Your task to perform on an android device: find photos in the google photos app Image 0: 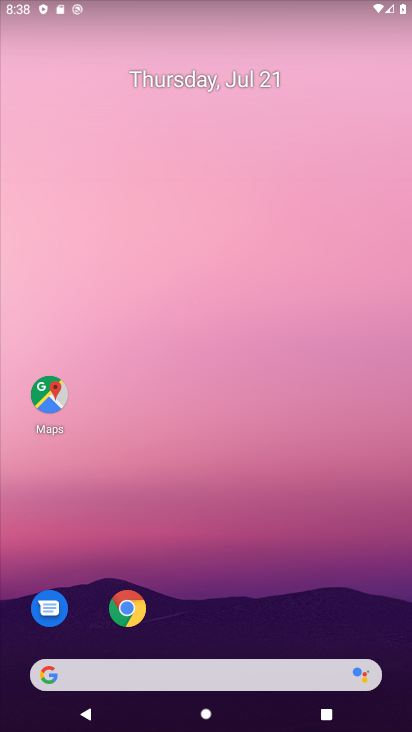
Step 0: drag from (258, 633) to (156, 188)
Your task to perform on an android device: find photos in the google photos app Image 1: 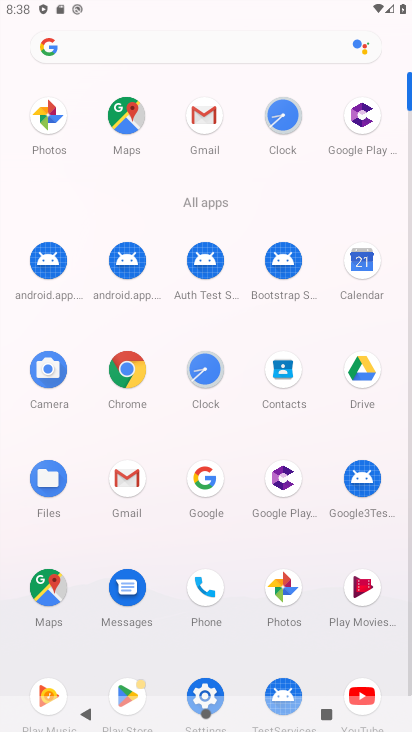
Step 1: click (51, 125)
Your task to perform on an android device: find photos in the google photos app Image 2: 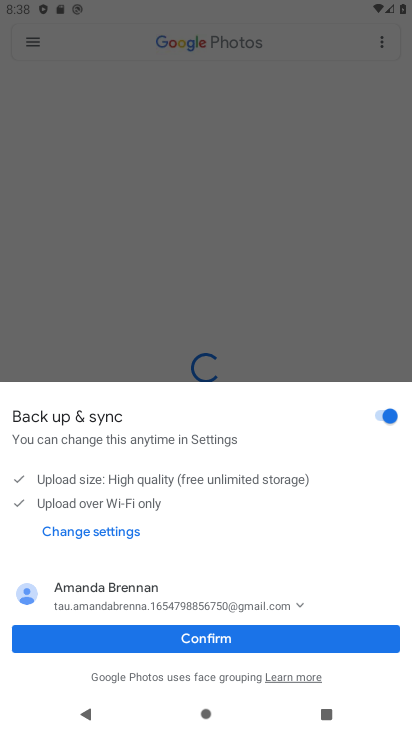
Step 2: click (245, 637)
Your task to perform on an android device: find photos in the google photos app Image 3: 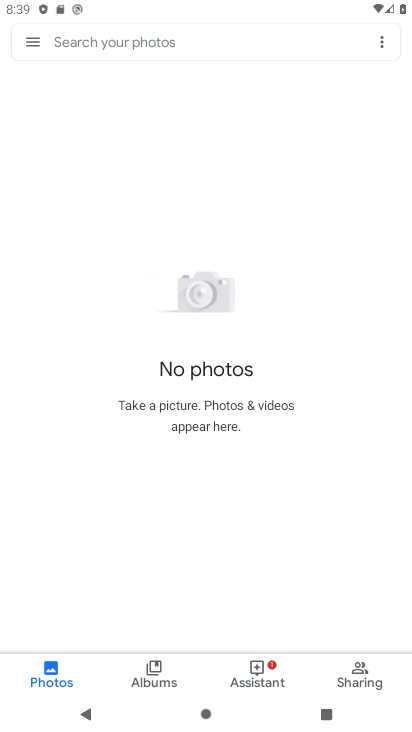
Step 3: task complete